Your task to perform on an android device: turn pop-ups on in chrome Image 0: 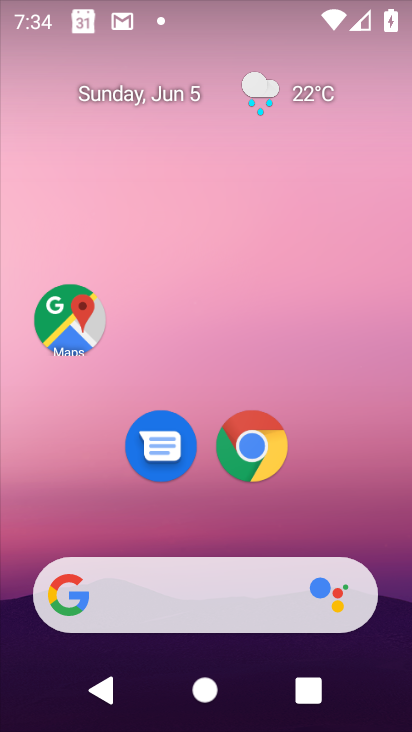
Step 0: click (254, 442)
Your task to perform on an android device: turn pop-ups on in chrome Image 1: 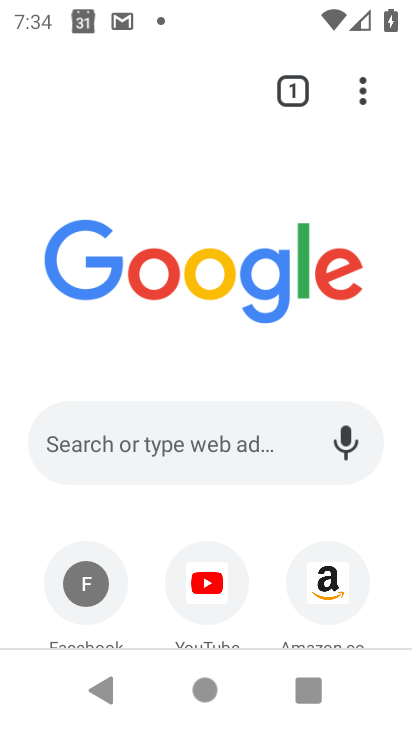
Step 1: click (360, 88)
Your task to perform on an android device: turn pop-ups on in chrome Image 2: 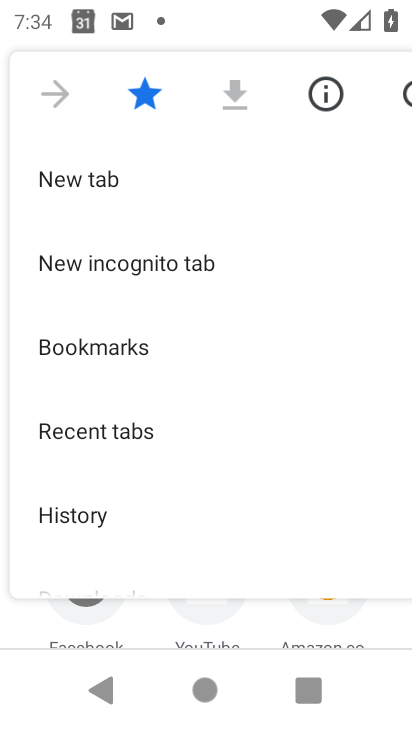
Step 2: drag from (127, 492) to (212, 161)
Your task to perform on an android device: turn pop-ups on in chrome Image 3: 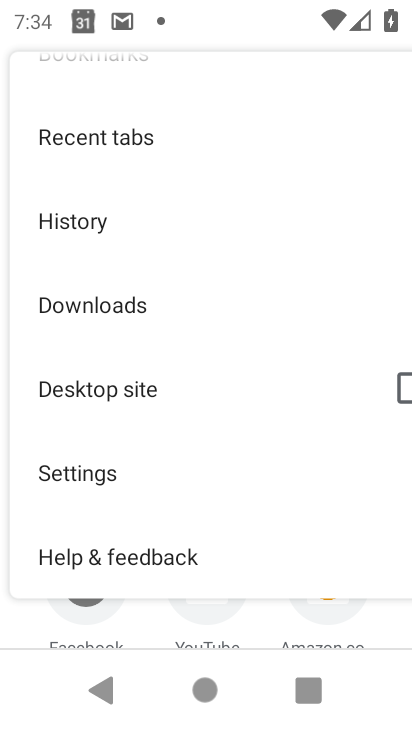
Step 3: click (85, 475)
Your task to perform on an android device: turn pop-ups on in chrome Image 4: 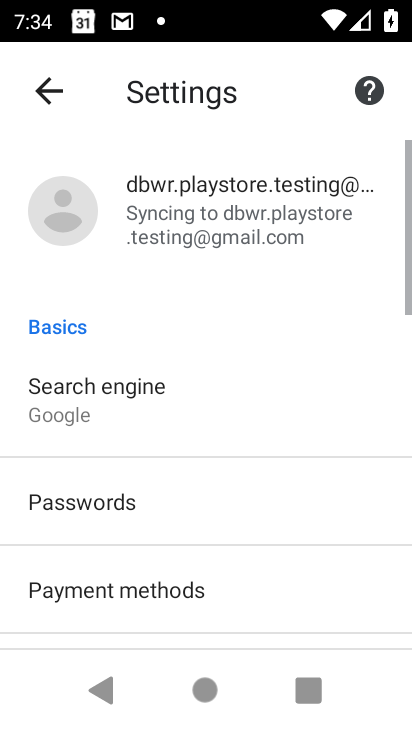
Step 4: drag from (80, 493) to (245, 189)
Your task to perform on an android device: turn pop-ups on in chrome Image 5: 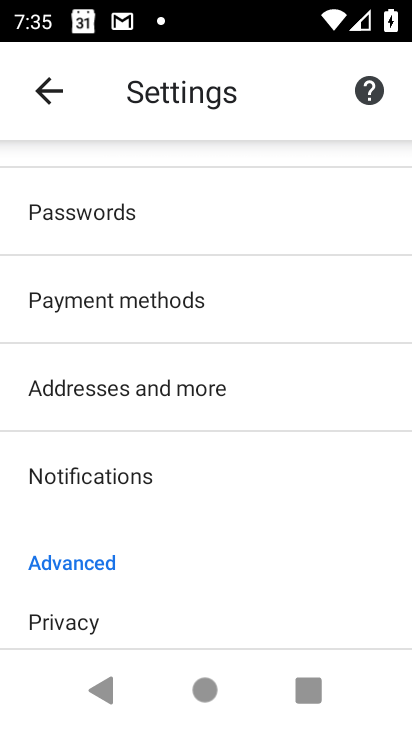
Step 5: drag from (166, 534) to (254, 249)
Your task to perform on an android device: turn pop-ups on in chrome Image 6: 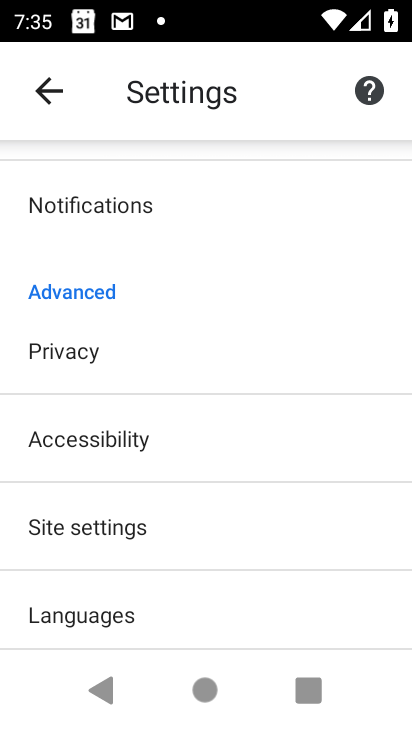
Step 6: click (98, 532)
Your task to perform on an android device: turn pop-ups on in chrome Image 7: 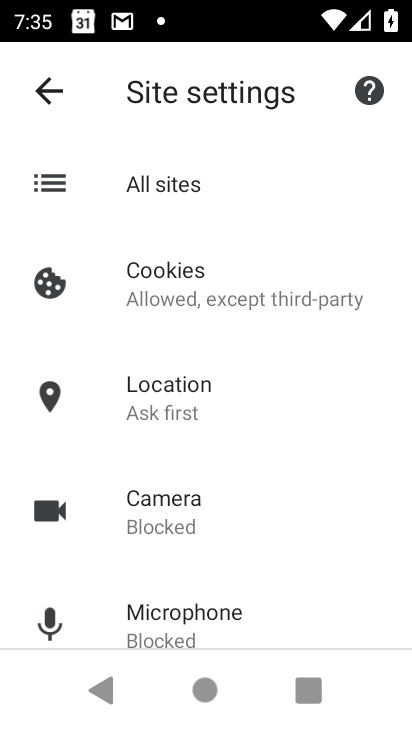
Step 7: drag from (150, 563) to (259, 247)
Your task to perform on an android device: turn pop-ups on in chrome Image 8: 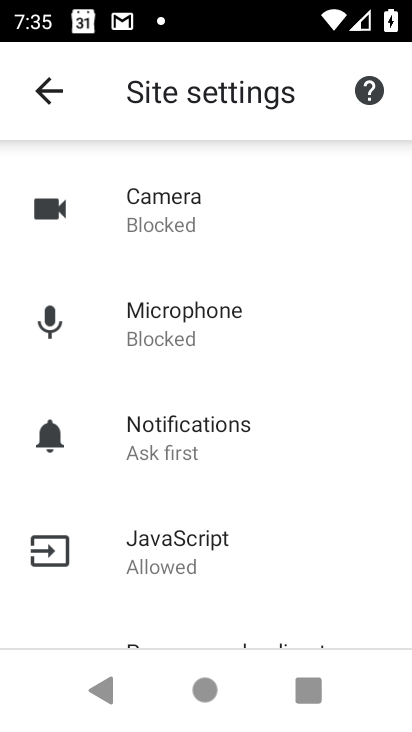
Step 8: drag from (214, 574) to (338, 295)
Your task to perform on an android device: turn pop-ups on in chrome Image 9: 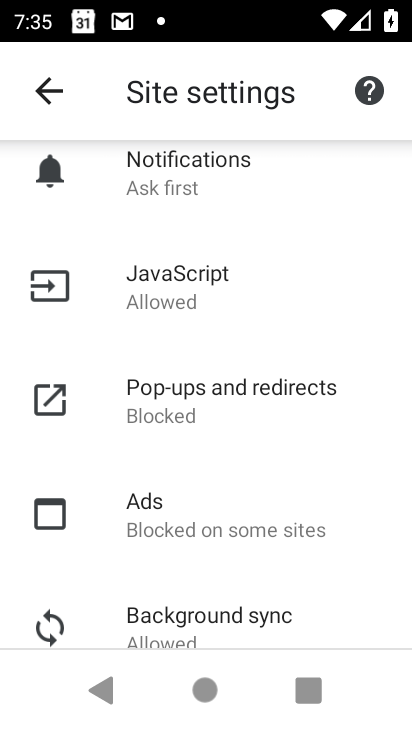
Step 9: drag from (199, 575) to (304, 249)
Your task to perform on an android device: turn pop-ups on in chrome Image 10: 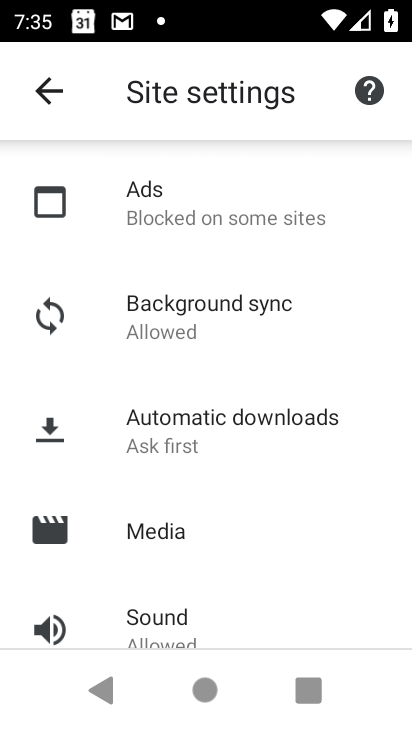
Step 10: drag from (191, 544) to (249, 244)
Your task to perform on an android device: turn pop-ups on in chrome Image 11: 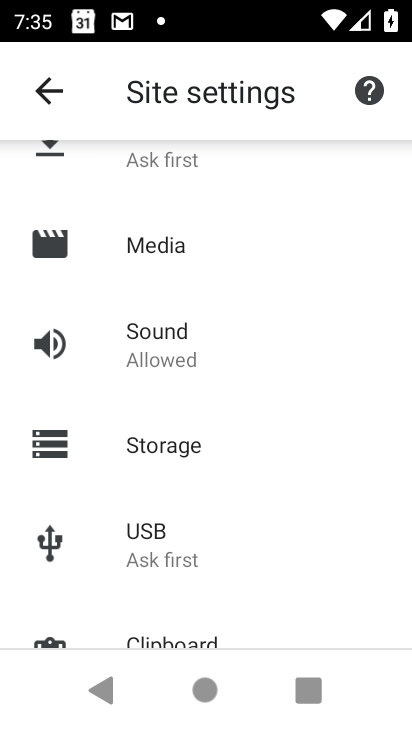
Step 11: drag from (193, 239) to (167, 581)
Your task to perform on an android device: turn pop-ups on in chrome Image 12: 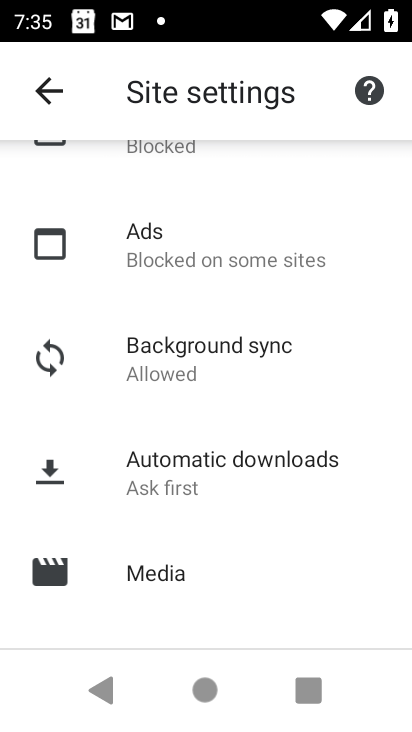
Step 12: drag from (226, 228) to (235, 570)
Your task to perform on an android device: turn pop-ups on in chrome Image 13: 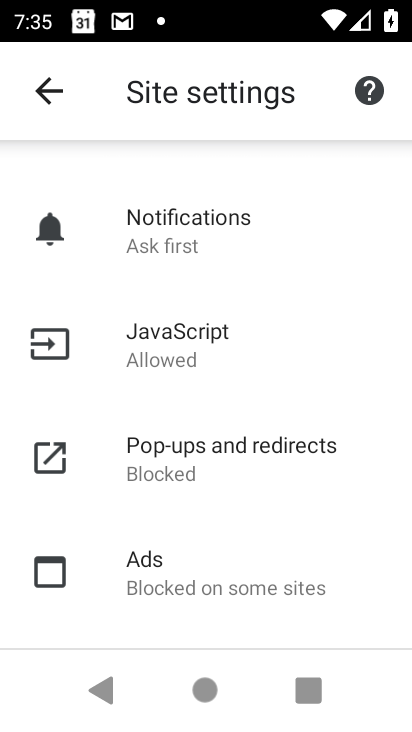
Step 13: click (190, 444)
Your task to perform on an android device: turn pop-ups on in chrome Image 14: 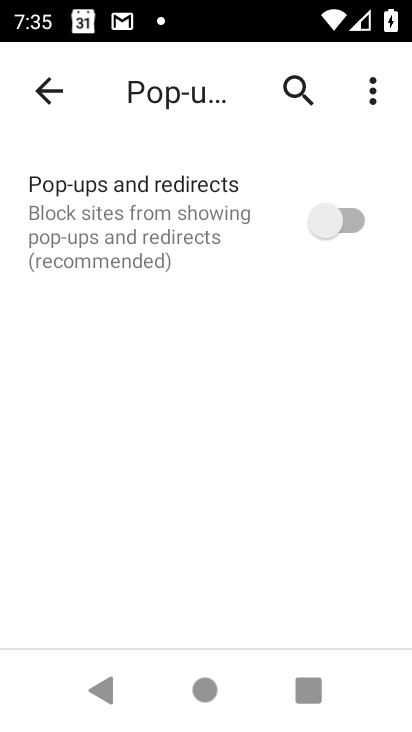
Step 14: click (352, 220)
Your task to perform on an android device: turn pop-ups on in chrome Image 15: 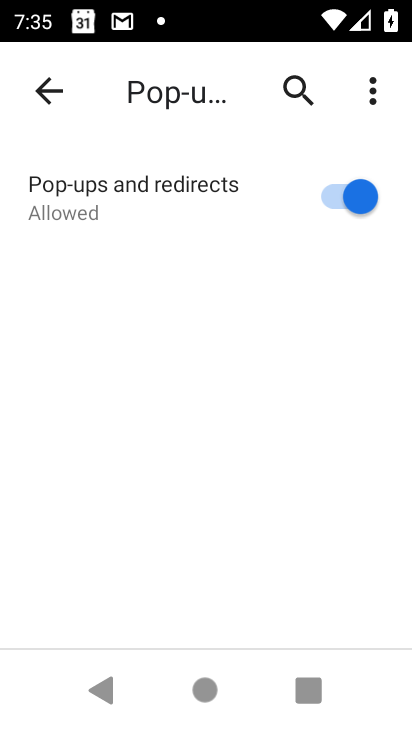
Step 15: task complete